Your task to perform on an android device: find which apps use the phone's location Image 0: 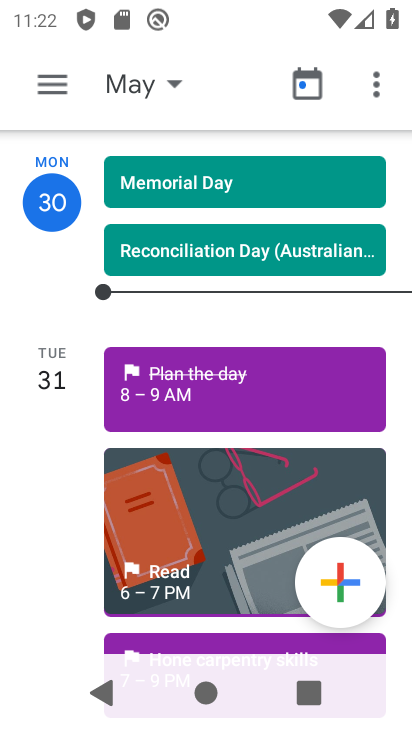
Step 0: press home button
Your task to perform on an android device: find which apps use the phone's location Image 1: 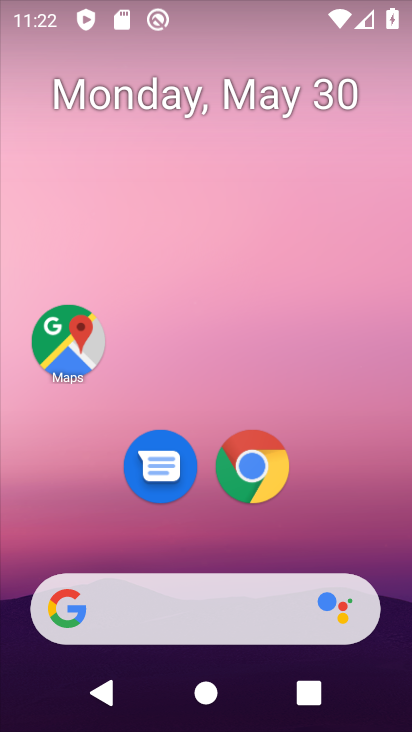
Step 1: drag from (228, 620) to (210, 141)
Your task to perform on an android device: find which apps use the phone's location Image 2: 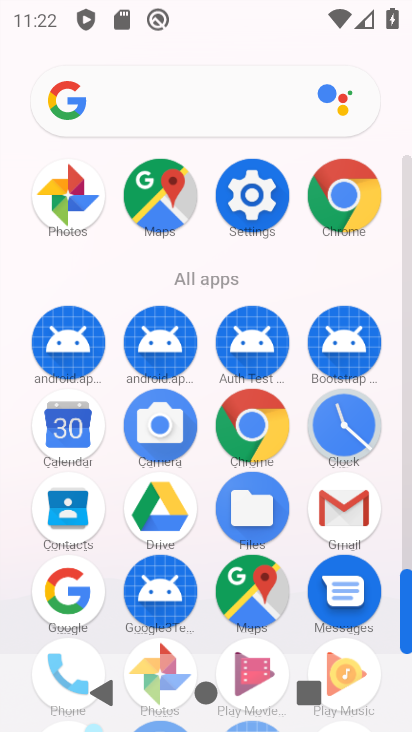
Step 2: click (258, 220)
Your task to perform on an android device: find which apps use the phone's location Image 3: 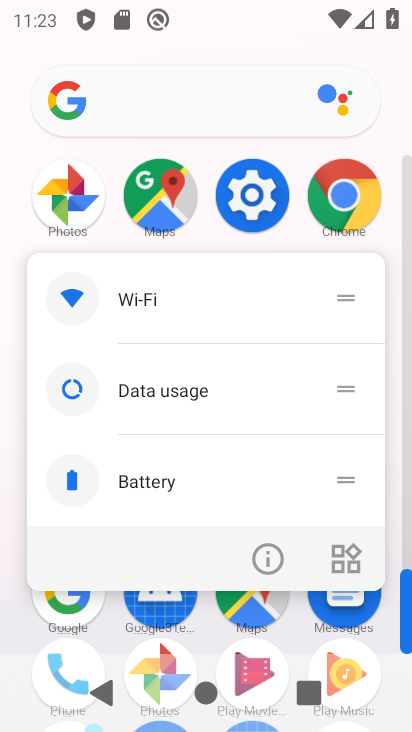
Step 3: click (248, 196)
Your task to perform on an android device: find which apps use the phone's location Image 4: 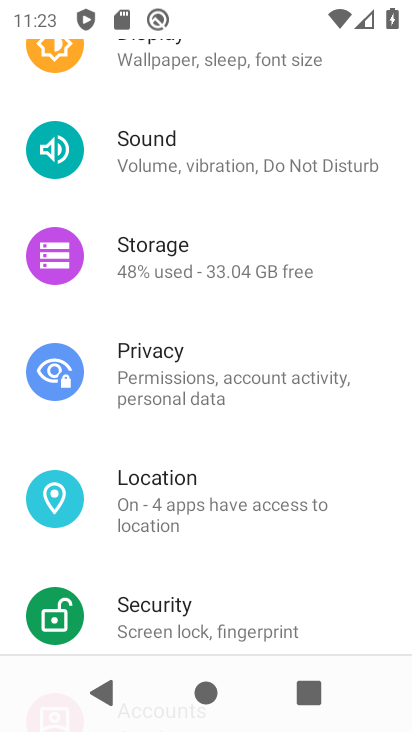
Step 4: click (183, 489)
Your task to perform on an android device: find which apps use the phone's location Image 5: 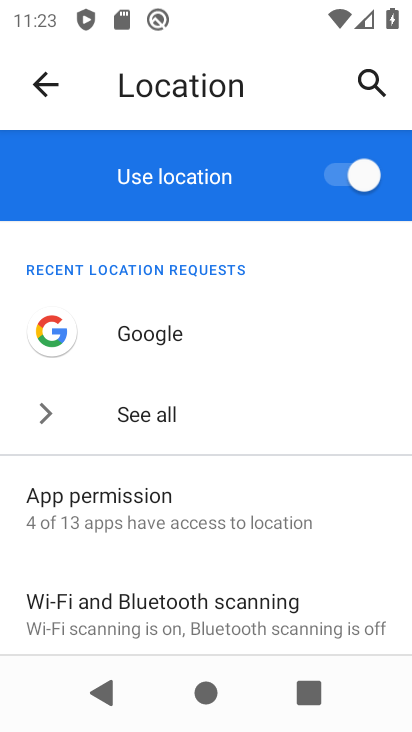
Step 5: click (145, 521)
Your task to perform on an android device: find which apps use the phone's location Image 6: 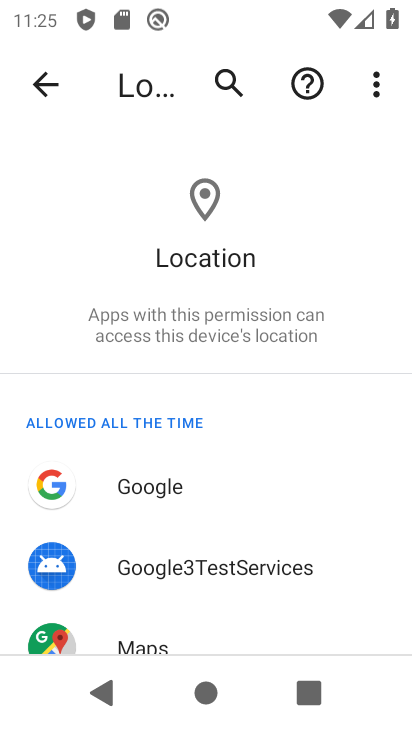
Step 6: task complete